Your task to perform on an android device: set an alarm Image 0: 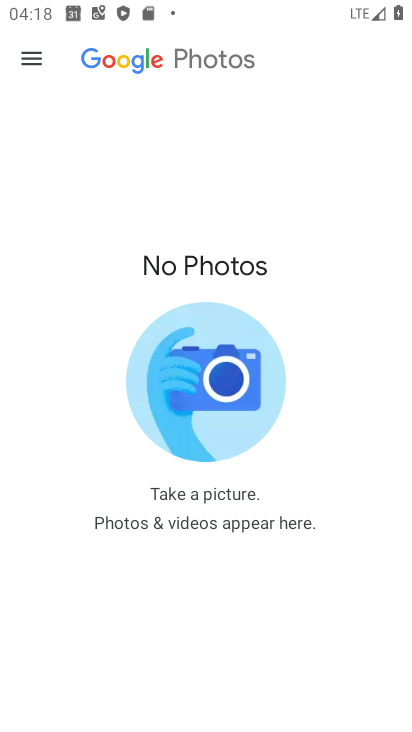
Step 0: press home button
Your task to perform on an android device: set an alarm Image 1: 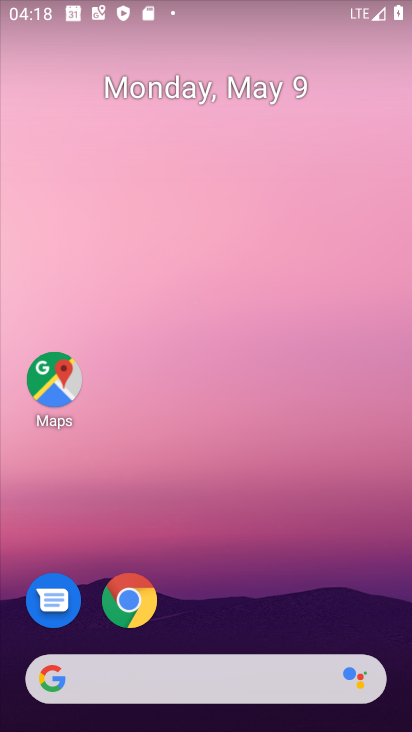
Step 1: drag from (214, 642) to (229, 118)
Your task to perform on an android device: set an alarm Image 2: 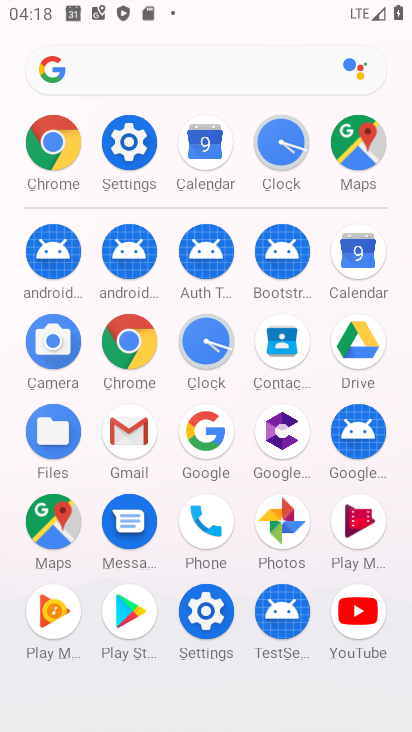
Step 2: click (209, 353)
Your task to perform on an android device: set an alarm Image 3: 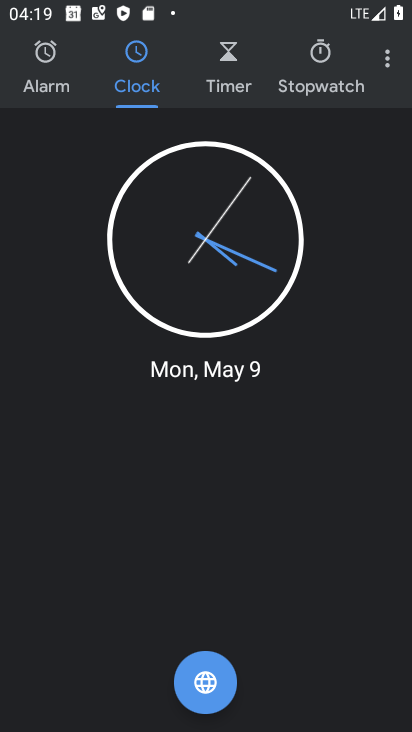
Step 3: click (62, 73)
Your task to perform on an android device: set an alarm Image 4: 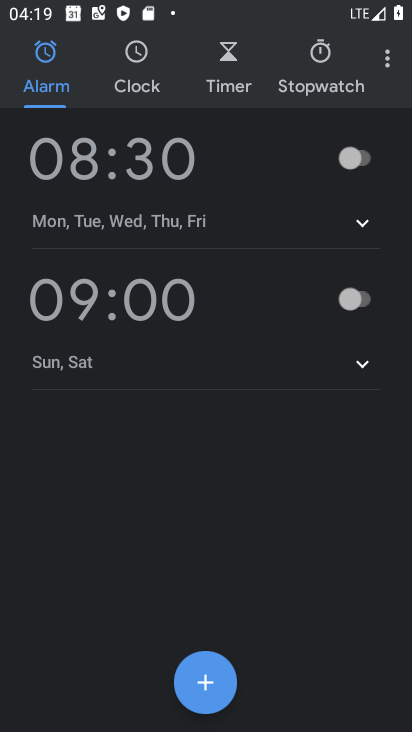
Step 4: click (352, 156)
Your task to perform on an android device: set an alarm Image 5: 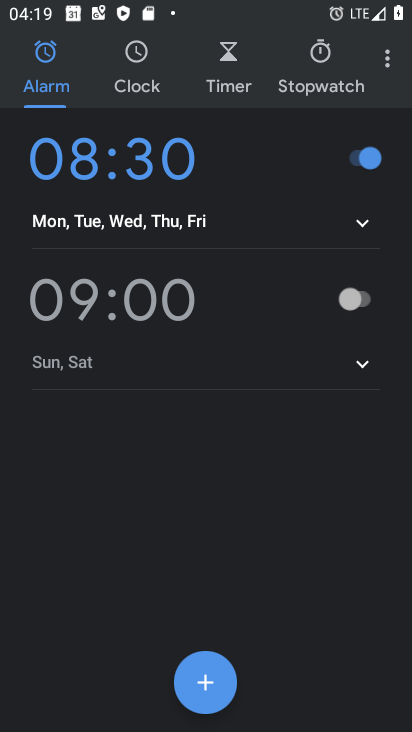
Step 5: task complete